Your task to perform on an android device: turn off wifi Image 0: 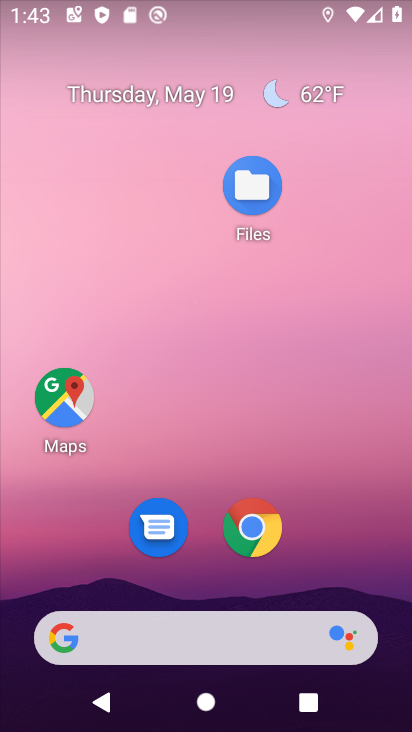
Step 0: drag from (343, 514) to (350, 93)
Your task to perform on an android device: turn off wifi Image 1: 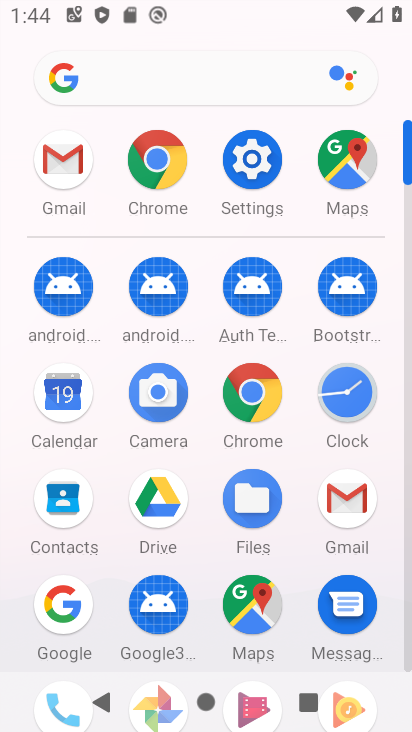
Step 1: click (255, 167)
Your task to perform on an android device: turn off wifi Image 2: 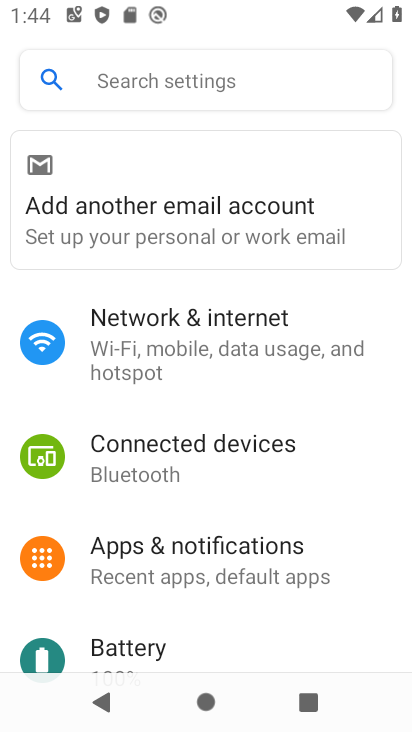
Step 2: click (238, 332)
Your task to perform on an android device: turn off wifi Image 3: 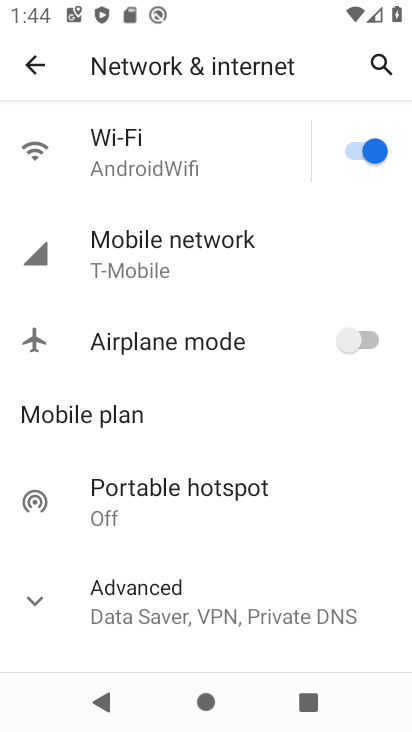
Step 3: click (197, 164)
Your task to perform on an android device: turn off wifi Image 4: 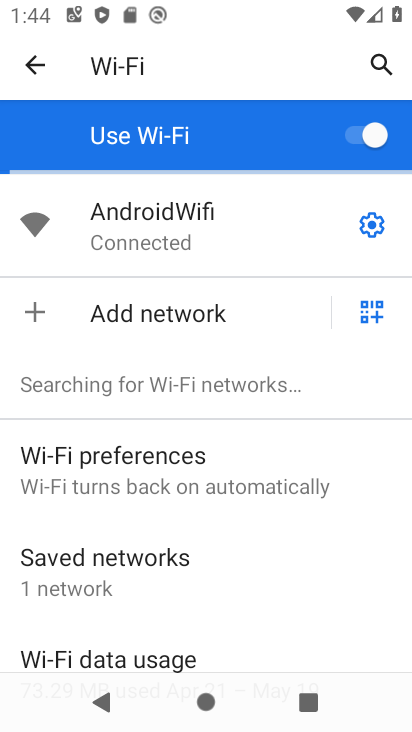
Step 4: click (357, 145)
Your task to perform on an android device: turn off wifi Image 5: 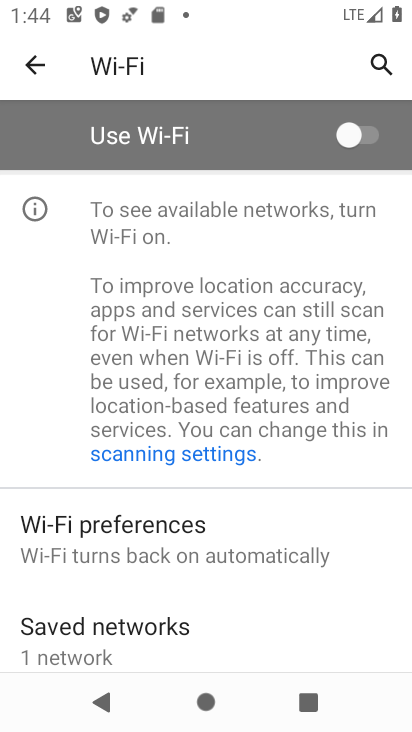
Step 5: task complete